Your task to perform on an android device: What is the news today? Image 0: 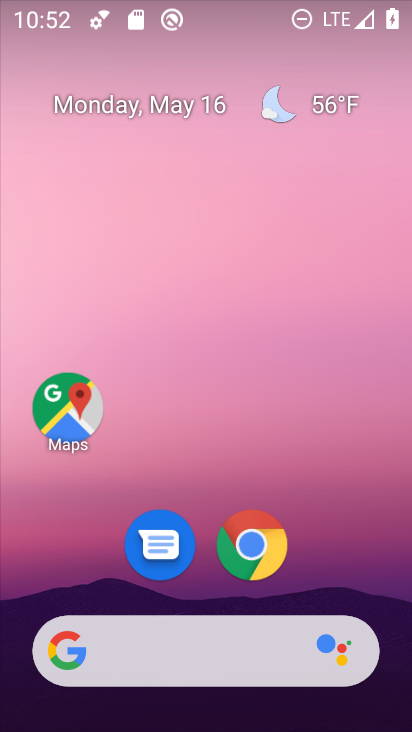
Step 0: drag from (339, 548) to (265, 137)
Your task to perform on an android device: What is the news today? Image 1: 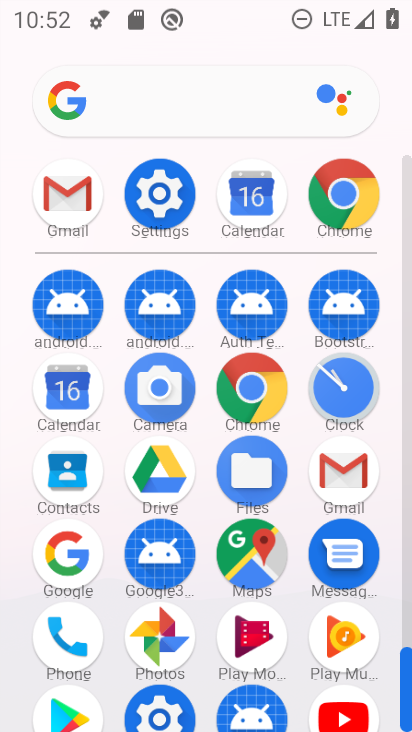
Step 1: click (62, 556)
Your task to perform on an android device: What is the news today? Image 2: 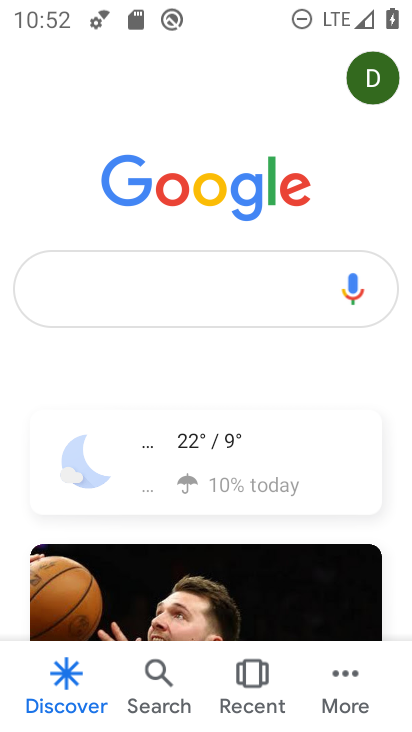
Step 2: click (154, 308)
Your task to perform on an android device: What is the news today? Image 3: 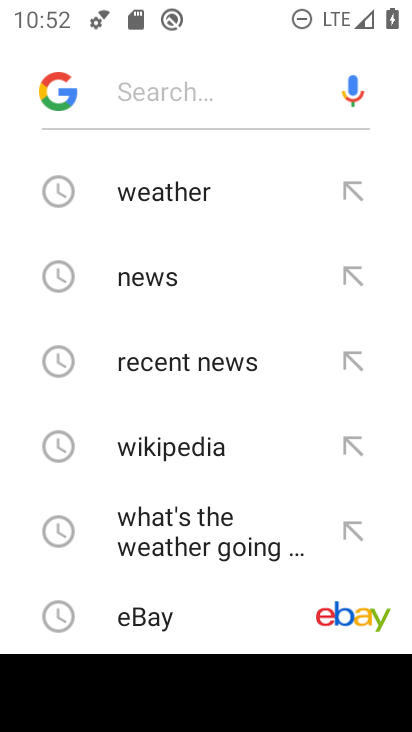
Step 3: type "news today"
Your task to perform on an android device: What is the news today? Image 4: 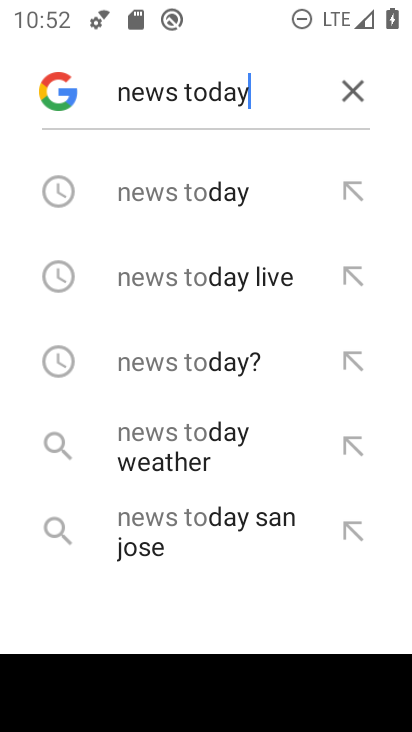
Step 4: type ""
Your task to perform on an android device: What is the news today? Image 5: 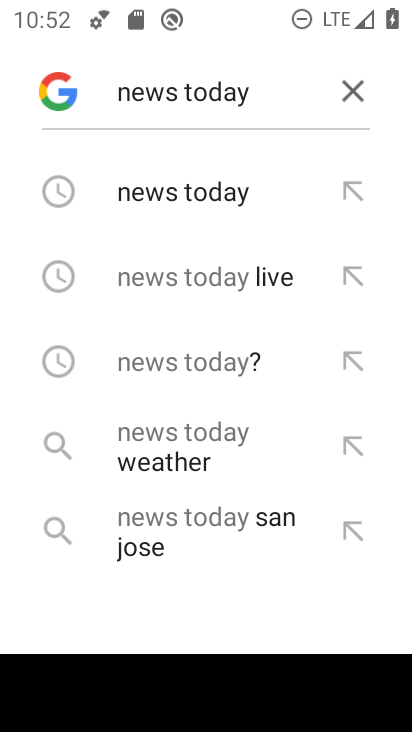
Step 5: click (222, 194)
Your task to perform on an android device: What is the news today? Image 6: 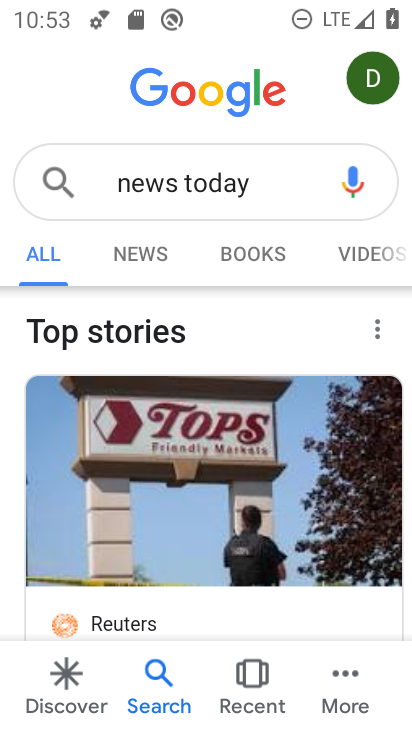
Step 6: task complete